Your task to perform on an android device: toggle data saver in the chrome app Image 0: 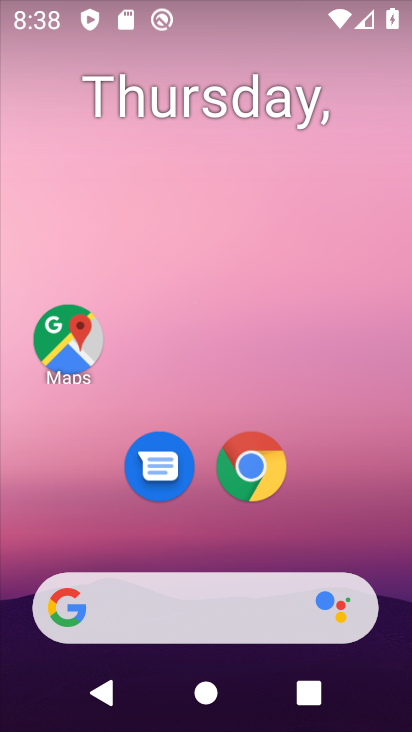
Step 0: press home button
Your task to perform on an android device: toggle data saver in the chrome app Image 1: 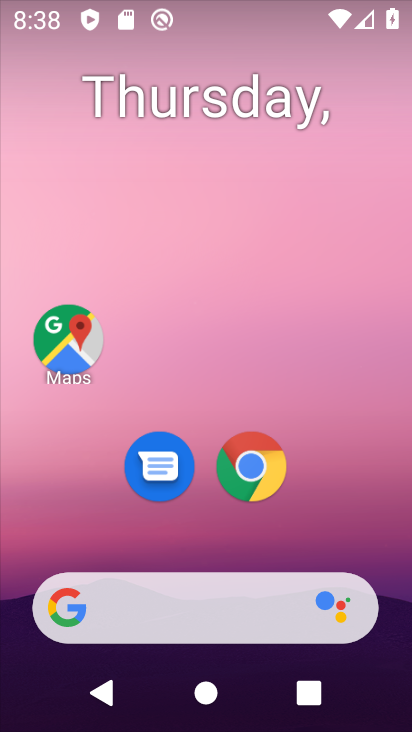
Step 1: click (258, 478)
Your task to perform on an android device: toggle data saver in the chrome app Image 2: 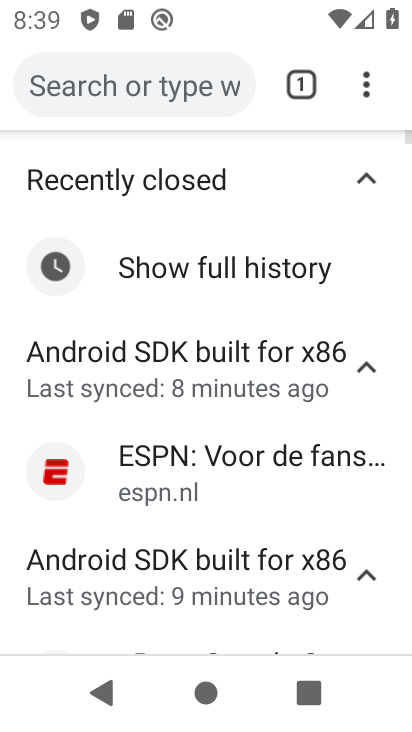
Step 2: drag from (358, 94) to (209, 527)
Your task to perform on an android device: toggle data saver in the chrome app Image 3: 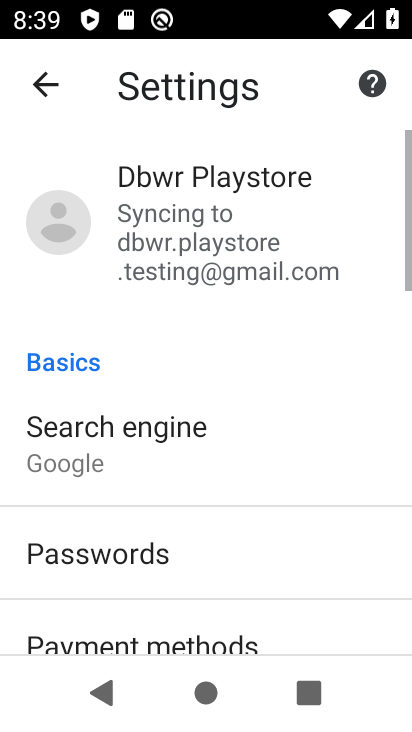
Step 3: drag from (191, 603) to (341, 167)
Your task to perform on an android device: toggle data saver in the chrome app Image 4: 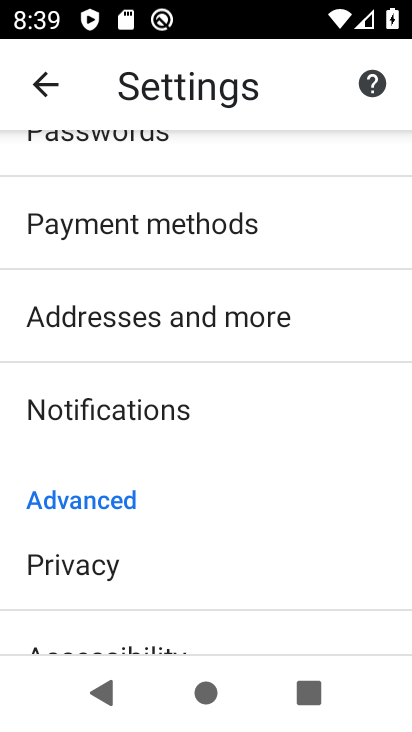
Step 4: drag from (203, 586) to (324, 199)
Your task to perform on an android device: toggle data saver in the chrome app Image 5: 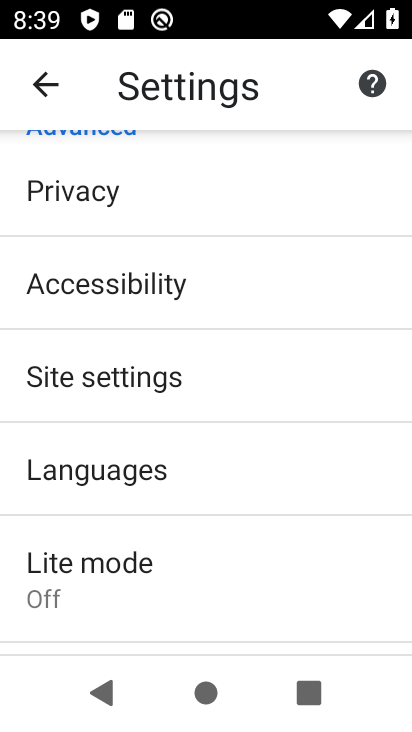
Step 5: click (137, 583)
Your task to perform on an android device: toggle data saver in the chrome app Image 6: 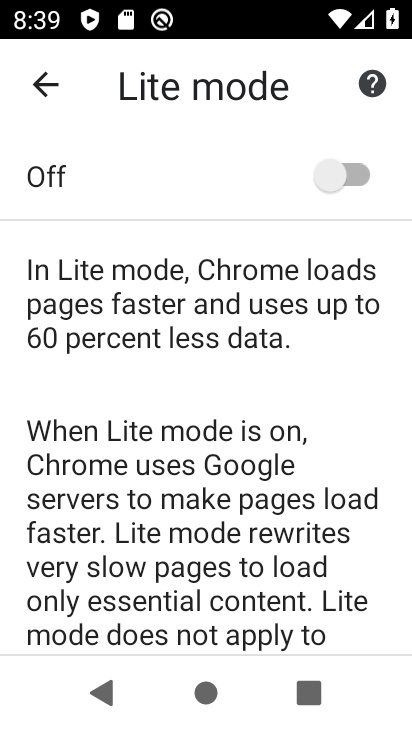
Step 6: click (358, 172)
Your task to perform on an android device: toggle data saver in the chrome app Image 7: 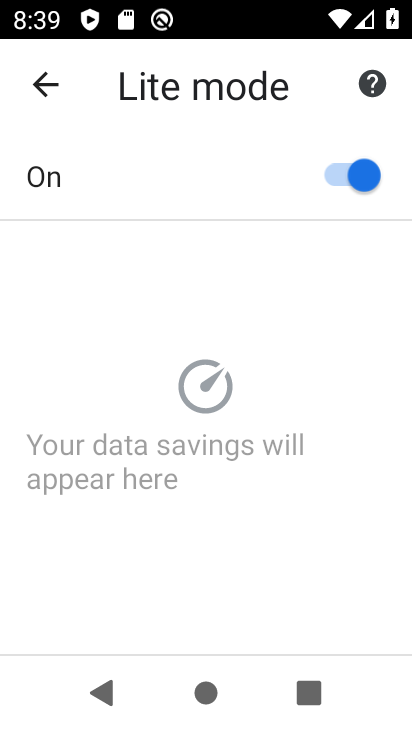
Step 7: task complete